Your task to perform on an android device: Open battery settings Image 0: 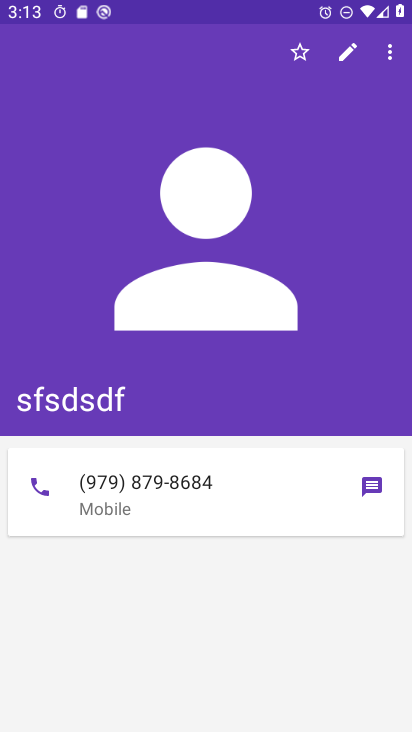
Step 0: press home button
Your task to perform on an android device: Open battery settings Image 1: 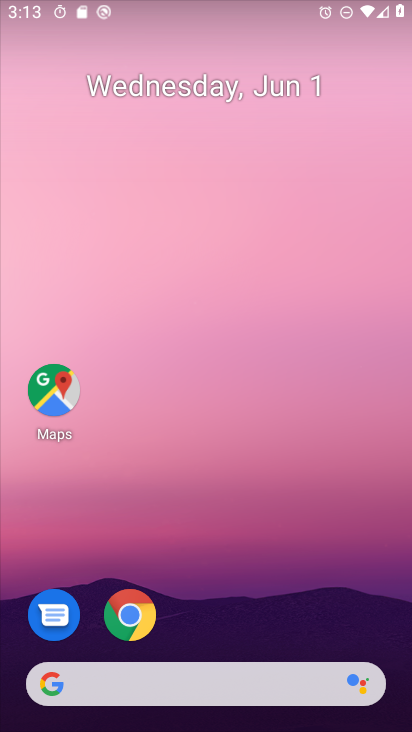
Step 1: drag from (272, 407) to (318, 16)
Your task to perform on an android device: Open battery settings Image 2: 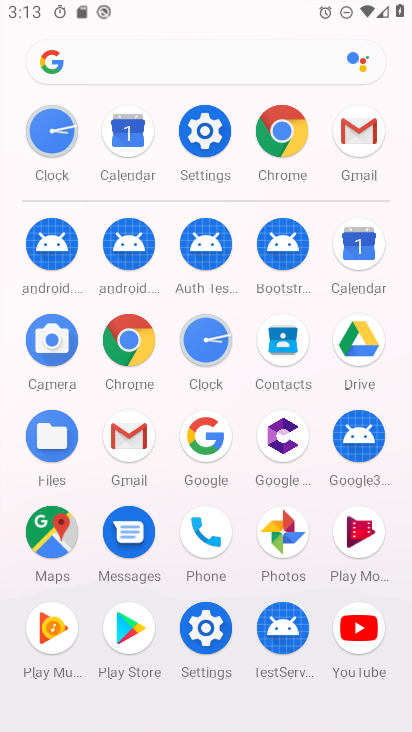
Step 2: click (212, 122)
Your task to perform on an android device: Open battery settings Image 3: 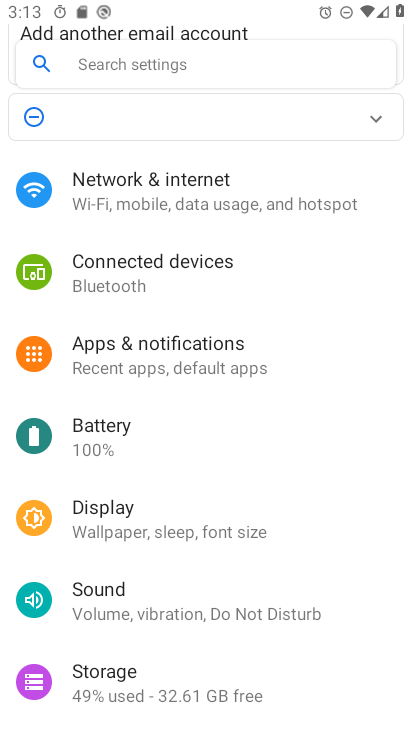
Step 3: drag from (227, 673) to (238, 580)
Your task to perform on an android device: Open battery settings Image 4: 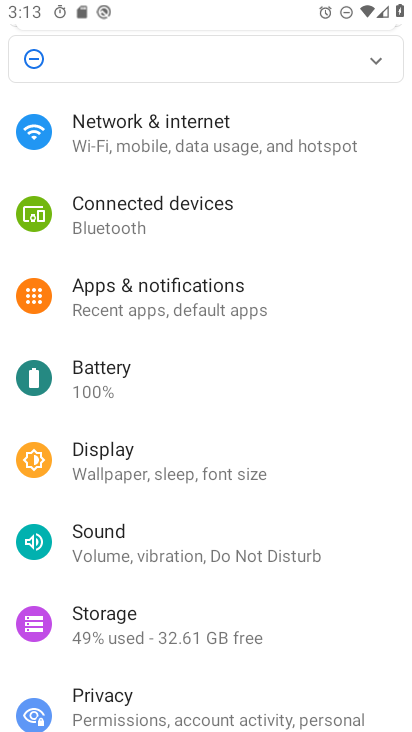
Step 4: click (122, 390)
Your task to perform on an android device: Open battery settings Image 5: 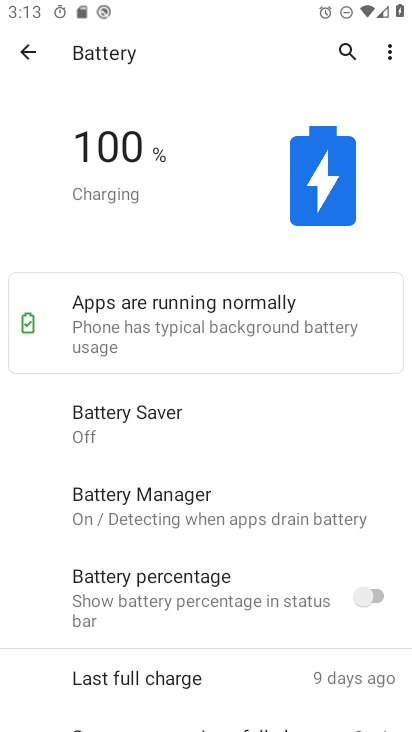
Step 5: task complete